Your task to perform on an android device: create a new album in the google photos Image 0: 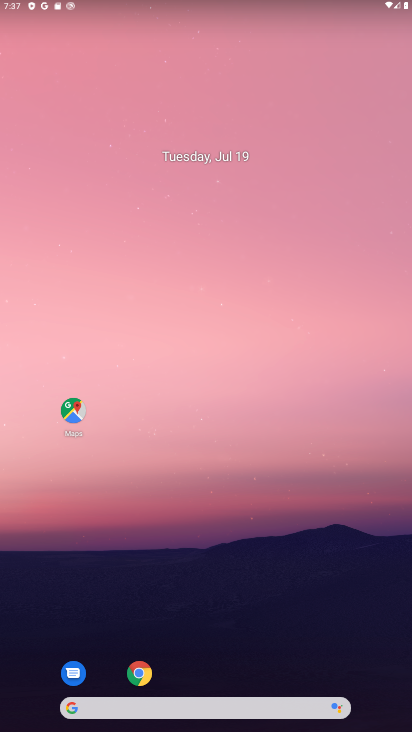
Step 0: drag from (242, 658) to (245, 232)
Your task to perform on an android device: create a new album in the google photos Image 1: 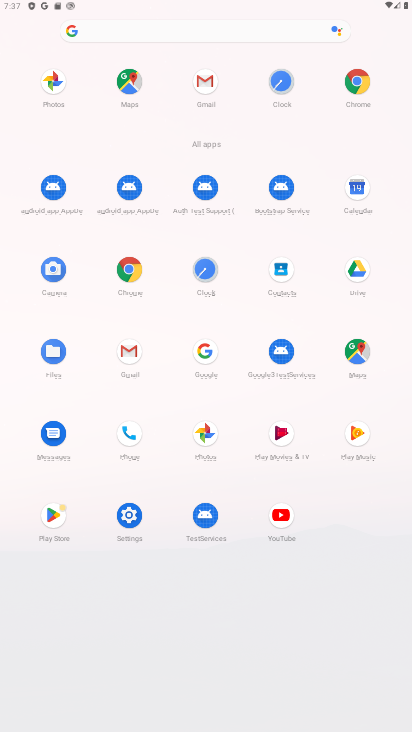
Step 1: click (59, 92)
Your task to perform on an android device: create a new album in the google photos Image 2: 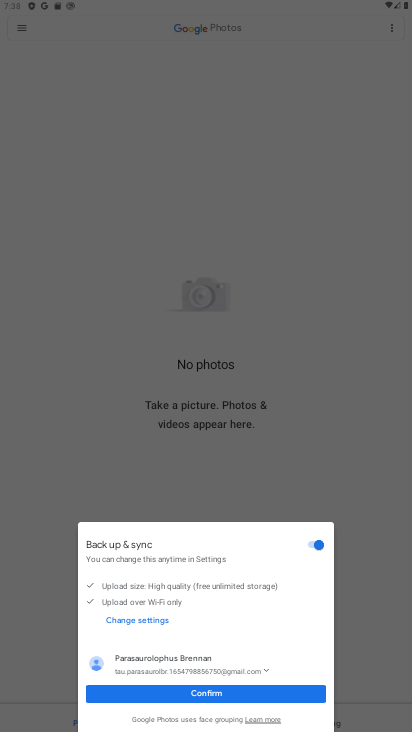
Step 2: click (245, 702)
Your task to perform on an android device: create a new album in the google photos Image 3: 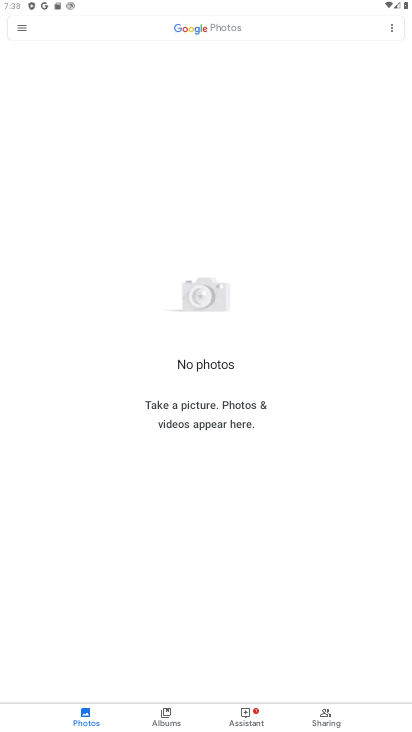
Step 3: click (185, 711)
Your task to perform on an android device: create a new album in the google photos Image 4: 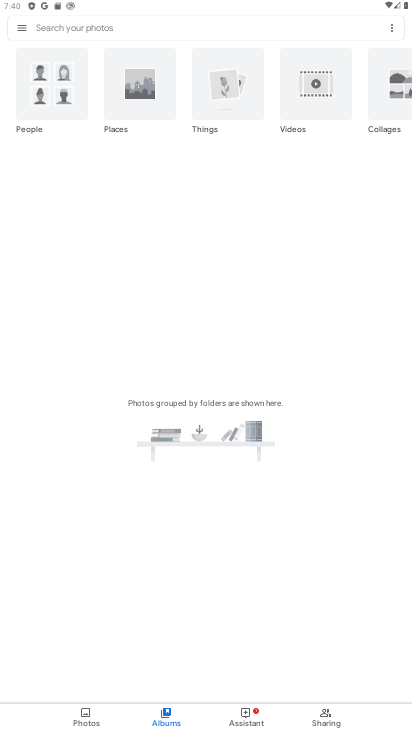
Step 4: task complete